Your task to perform on an android device: Search for Italian restaurants on Maps Image 0: 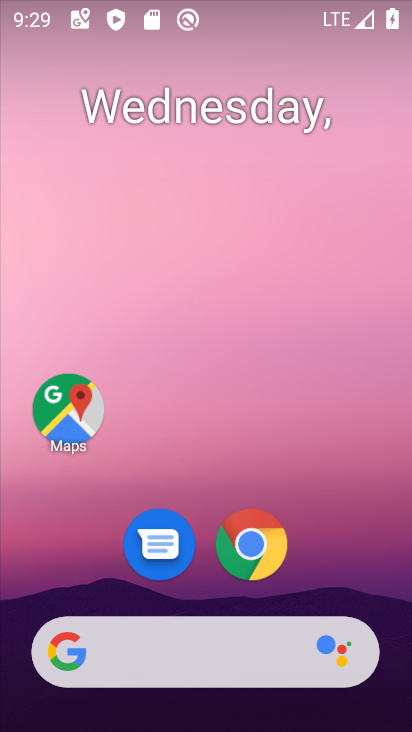
Step 0: click (91, 411)
Your task to perform on an android device: Search for Italian restaurants on Maps Image 1: 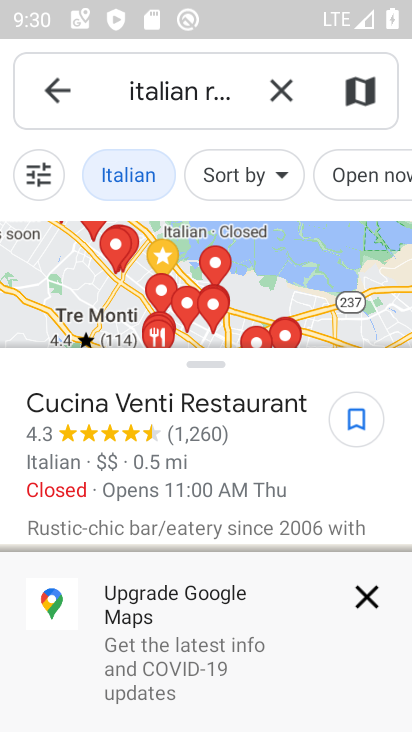
Step 1: task complete